Your task to perform on an android device: change timer sound Image 0: 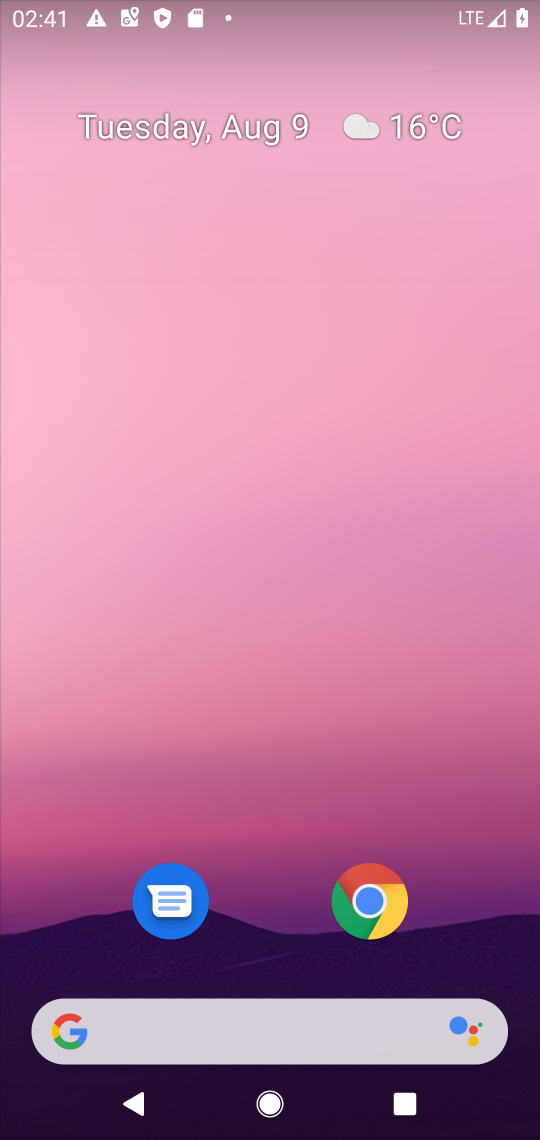
Step 0: drag from (524, 959) to (455, 258)
Your task to perform on an android device: change timer sound Image 1: 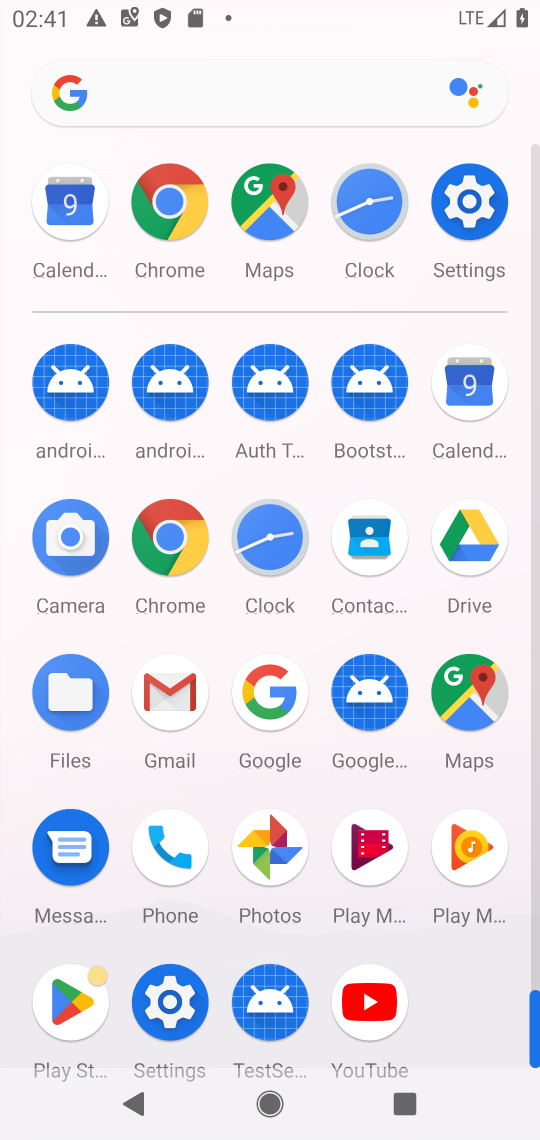
Step 1: click (270, 539)
Your task to perform on an android device: change timer sound Image 2: 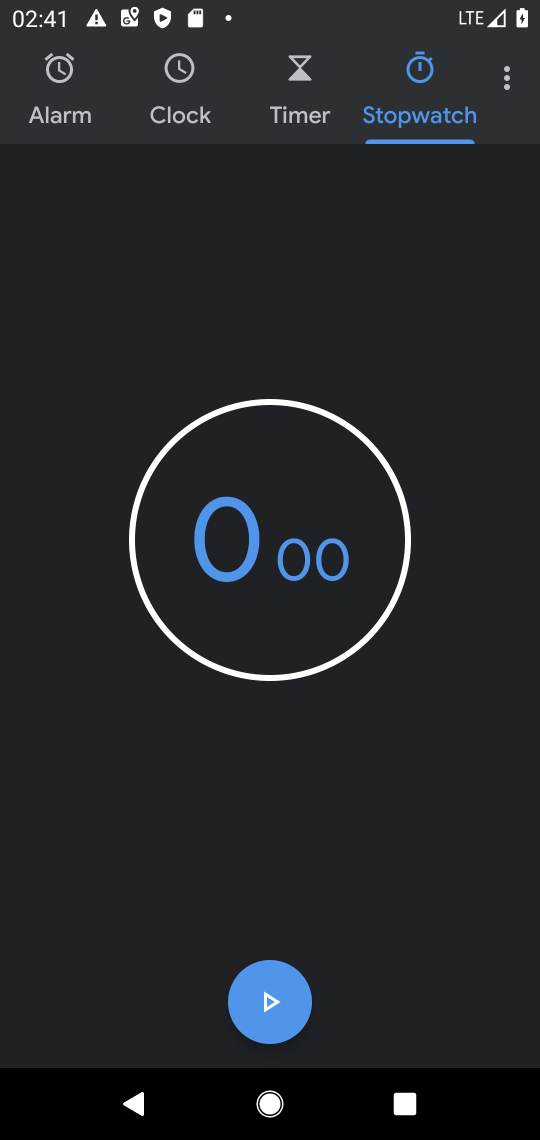
Step 2: click (502, 95)
Your task to perform on an android device: change timer sound Image 3: 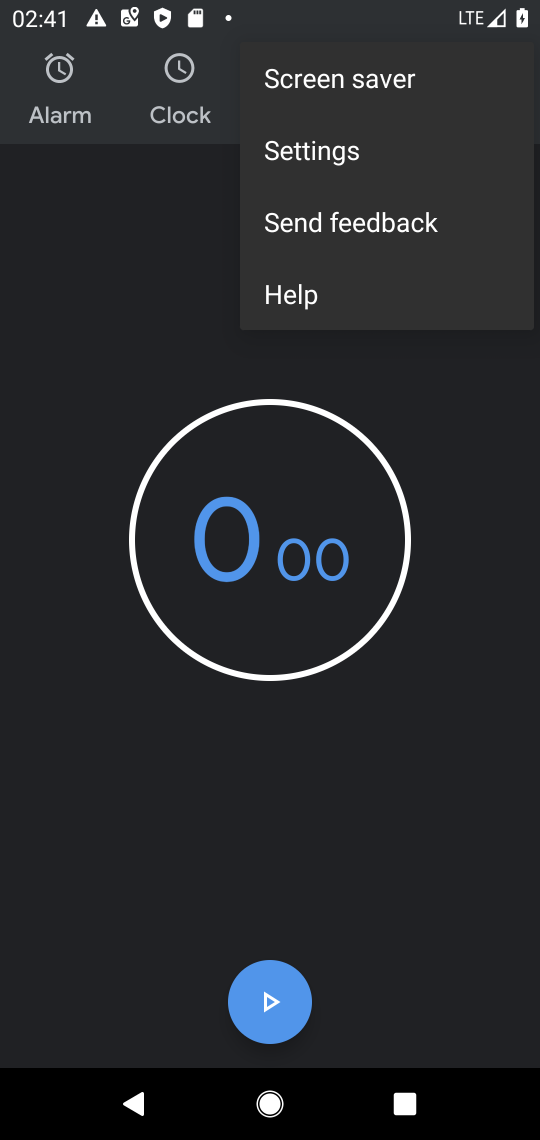
Step 3: click (306, 148)
Your task to perform on an android device: change timer sound Image 4: 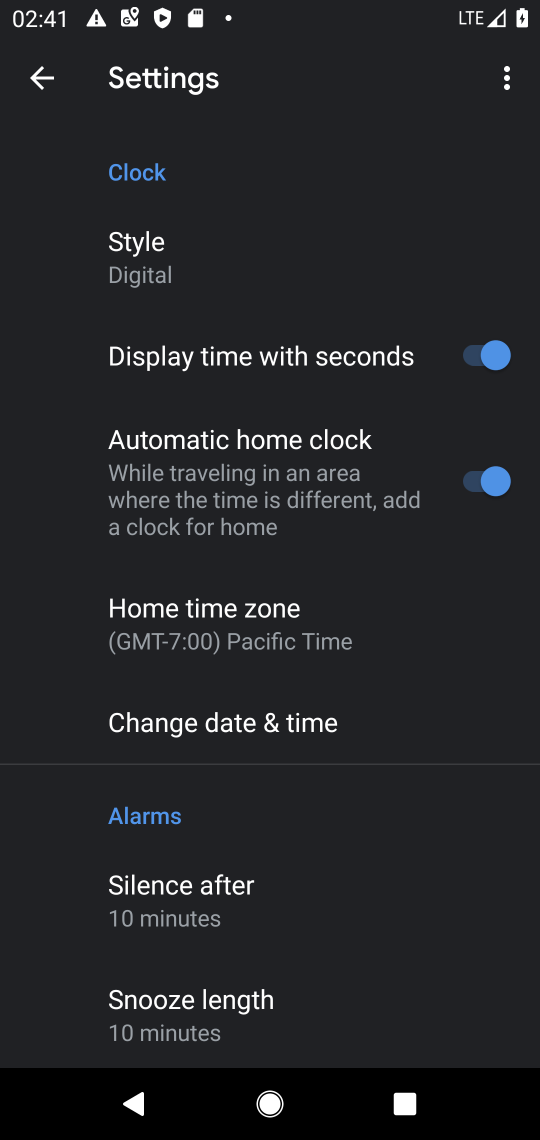
Step 4: drag from (346, 910) to (352, 347)
Your task to perform on an android device: change timer sound Image 5: 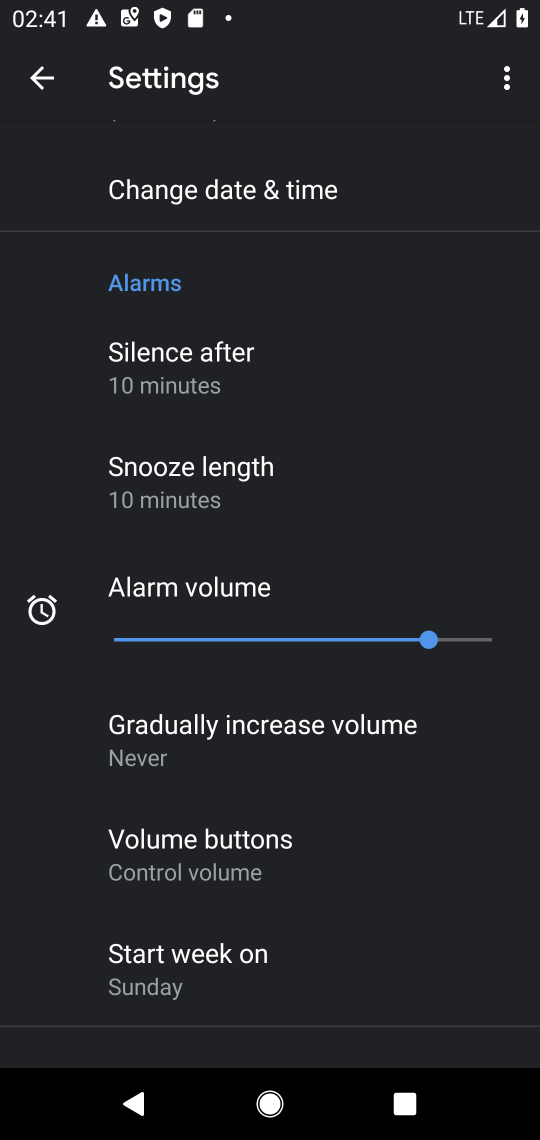
Step 5: drag from (283, 947) to (306, 350)
Your task to perform on an android device: change timer sound Image 6: 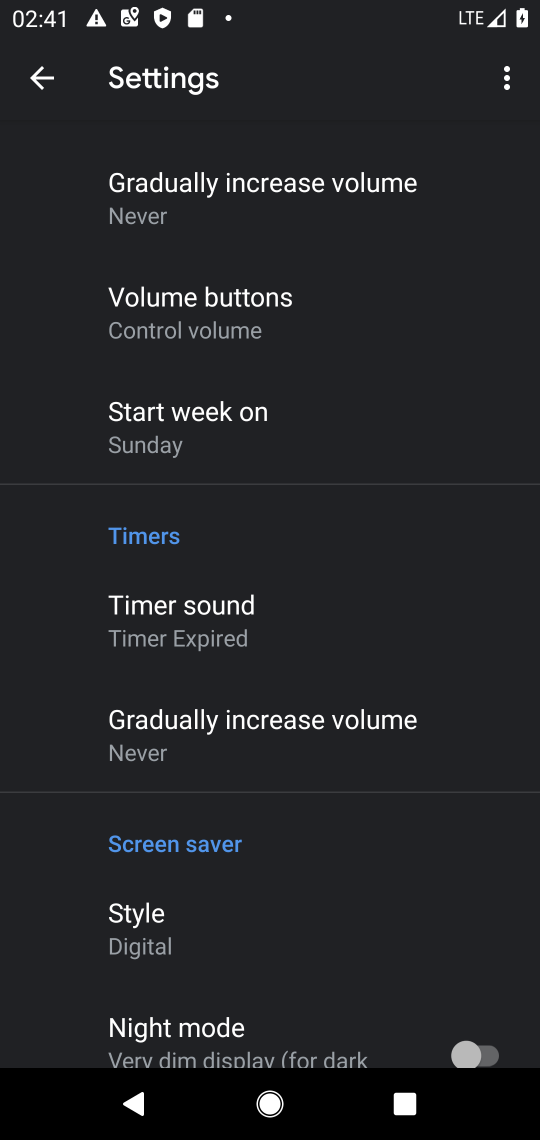
Step 6: click (195, 619)
Your task to perform on an android device: change timer sound Image 7: 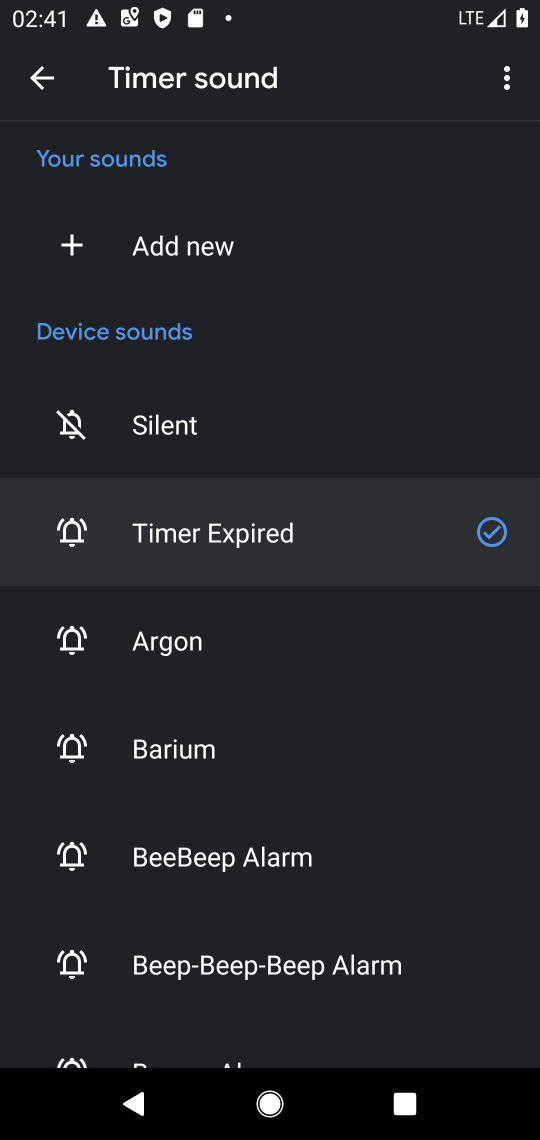
Step 7: drag from (334, 923) to (346, 276)
Your task to perform on an android device: change timer sound Image 8: 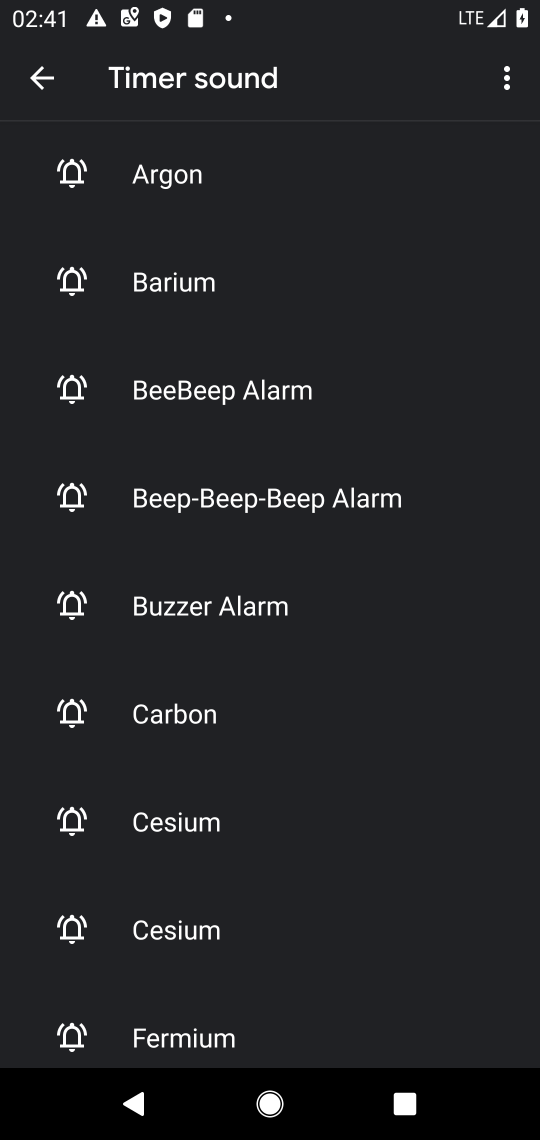
Step 8: click (215, 600)
Your task to perform on an android device: change timer sound Image 9: 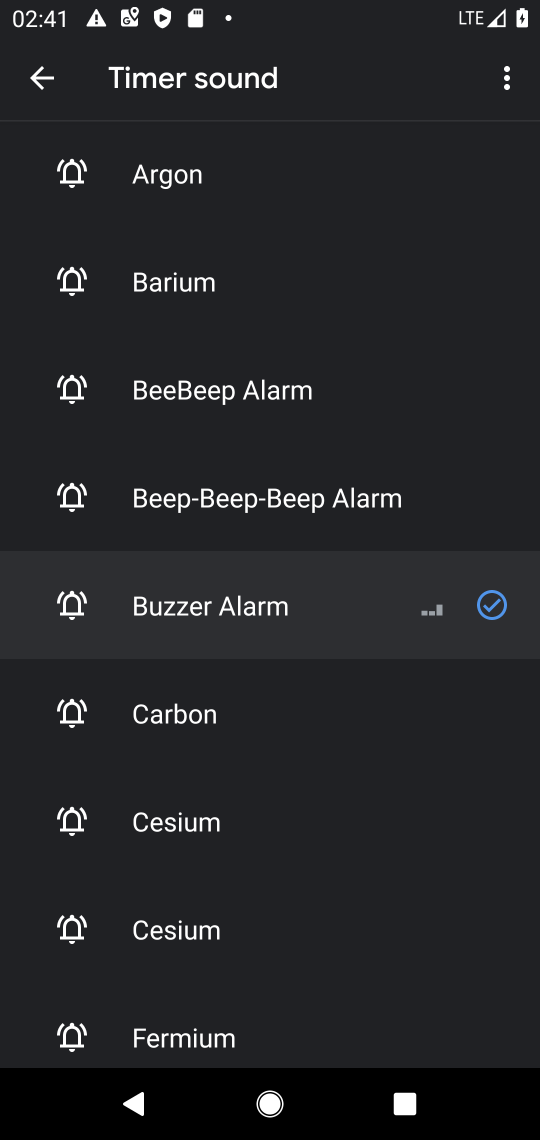
Step 9: task complete